Your task to perform on an android device: Go to battery settings Image 0: 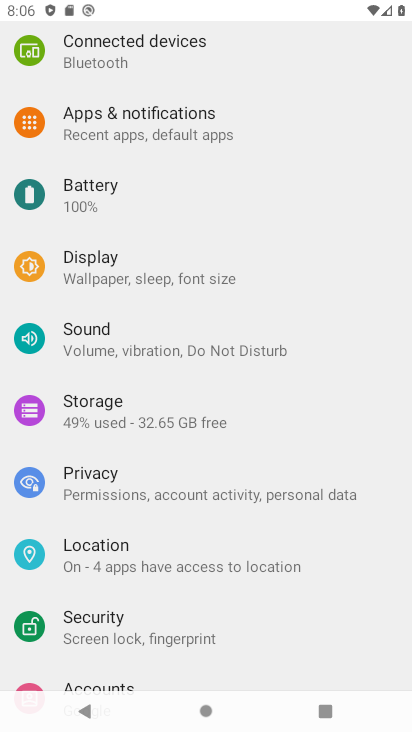
Step 0: click (116, 202)
Your task to perform on an android device: Go to battery settings Image 1: 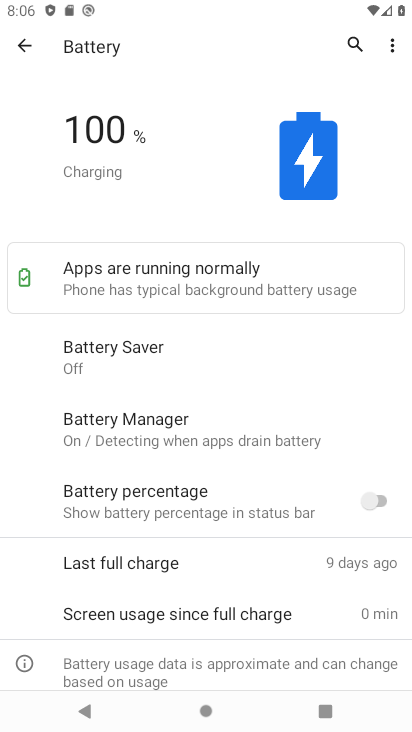
Step 1: task complete